Your task to perform on an android device: Open settings Image 0: 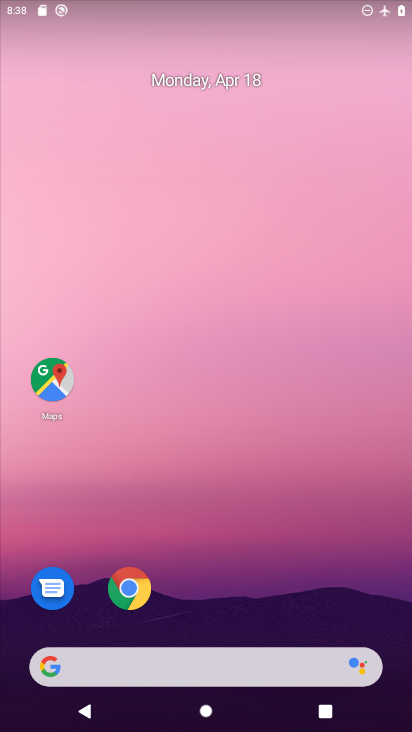
Step 0: drag from (198, 602) to (174, 71)
Your task to perform on an android device: Open settings Image 1: 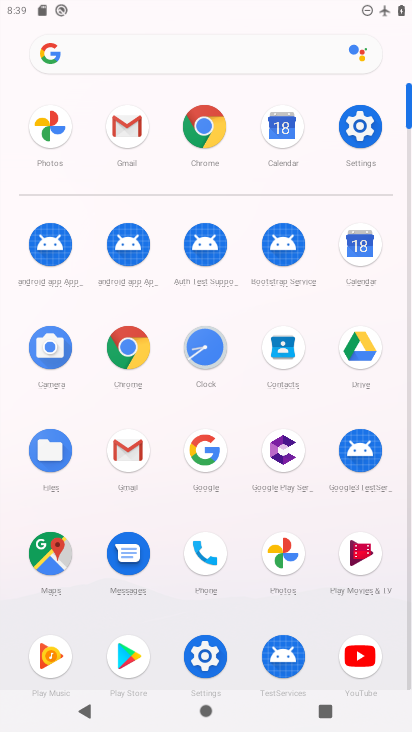
Step 1: click (353, 128)
Your task to perform on an android device: Open settings Image 2: 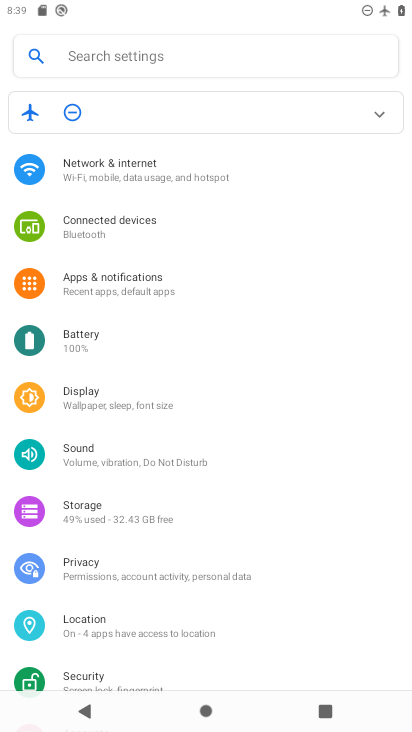
Step 2: task complete